Your task to perform on an android device: Play the last video I watched on Youtube Image 0: 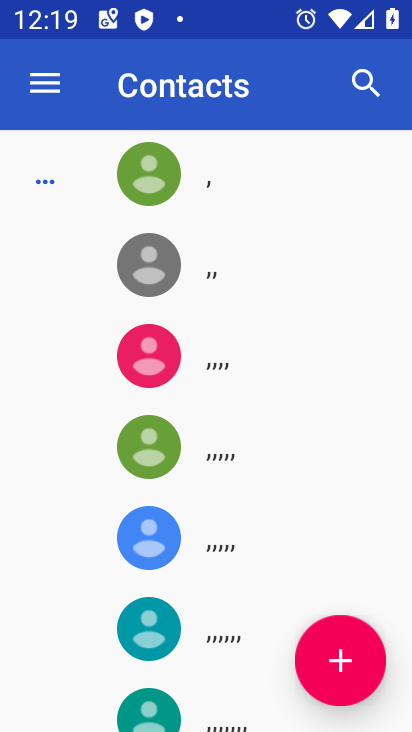
Step 0: press home button
Your task to perform on an android device: Play the last video I watched on Youtube Image 1: 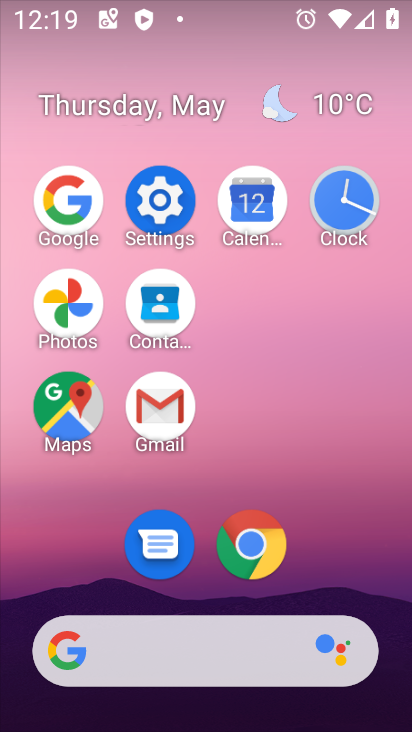
Step 1: drag from (334, 576) to (329, 124)
Your task to perform on an android device: Play the last video I watched on Youtube Image 2: 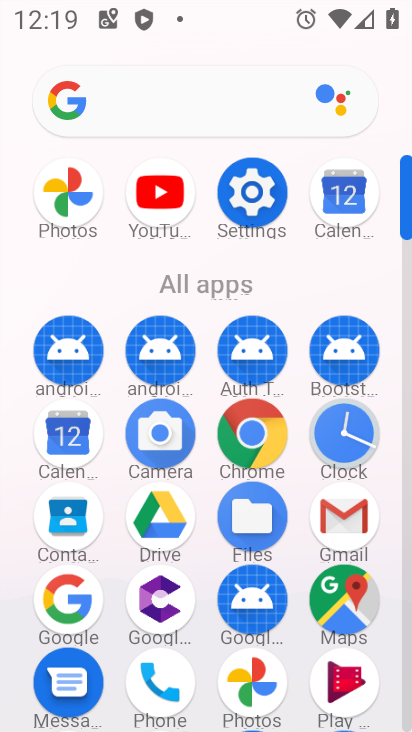
Step 2: drag from (250, 556) to (267, 120)
Your task to perform on an android device: Play the last video I watched on Youtube Image 3: 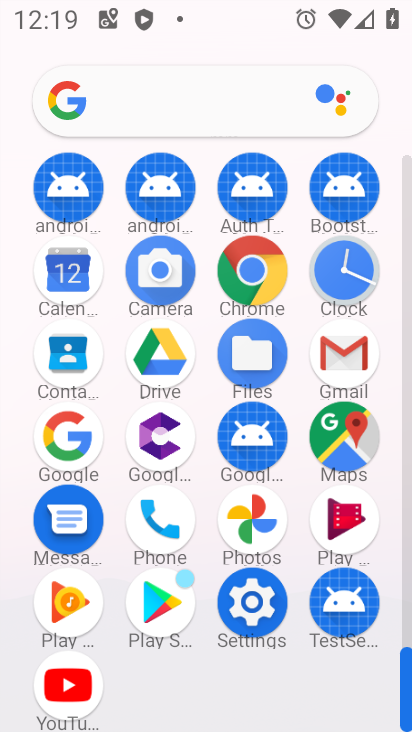
Step 3: click (66, 691)
Your task to perform on an android device: Play the last video I watched on Youtube Image 4: 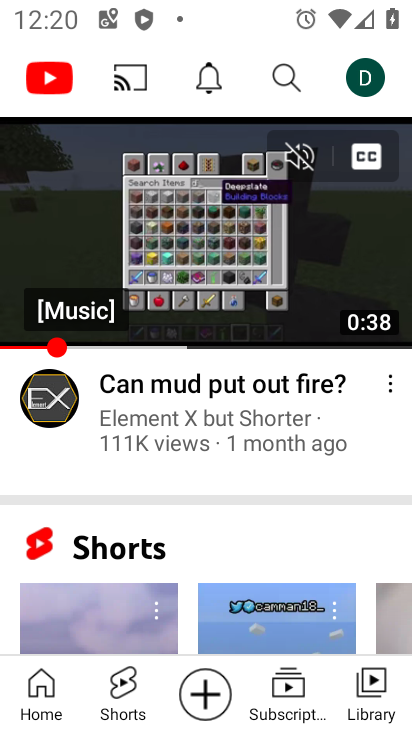
Step 4: click (366, 691)
Your task to perform on an android device: Play the last video I watched on Youtube Image 5: 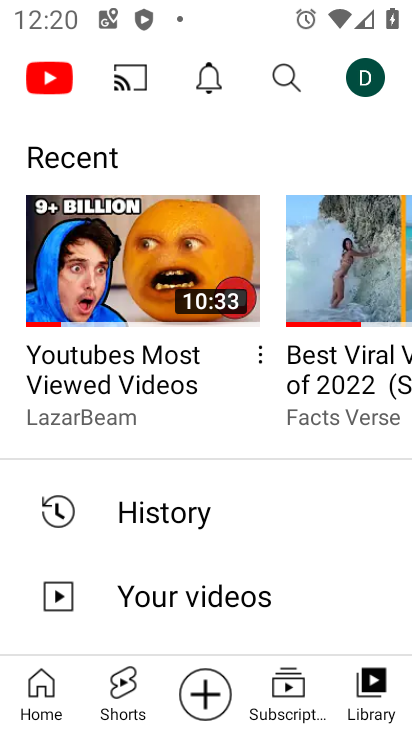
Step 5: click (198, 497)
Your task to perform on an android device: Play the last video I watched on Youtube Image 6: 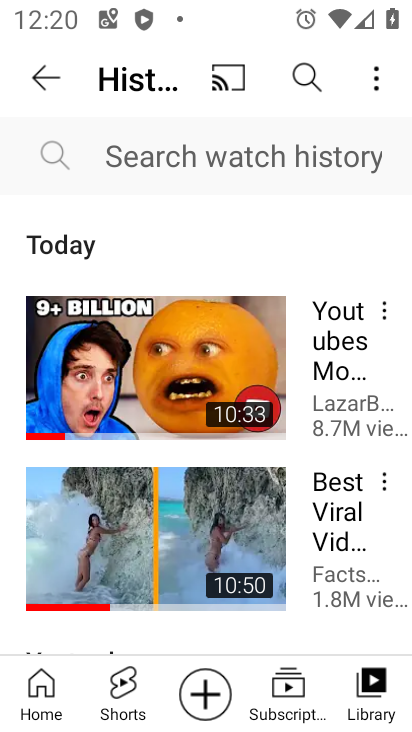
Step 6: task complete